Your task to perform on an android device: turn off picture-in-picture Image 0: 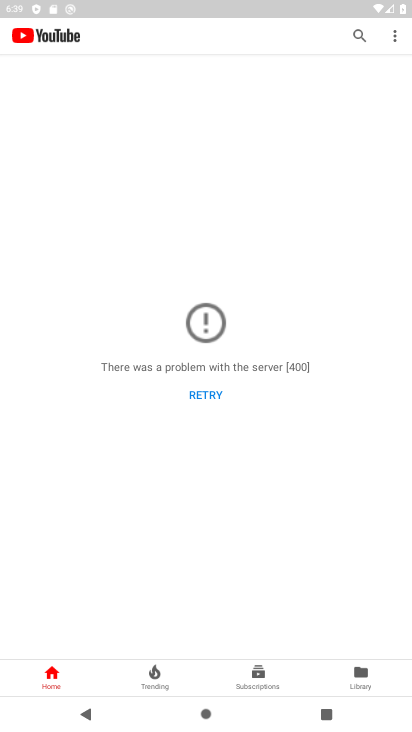
Step 0: press home button
Your task to perform on an android device: turn off picture-in-picture Image 1: 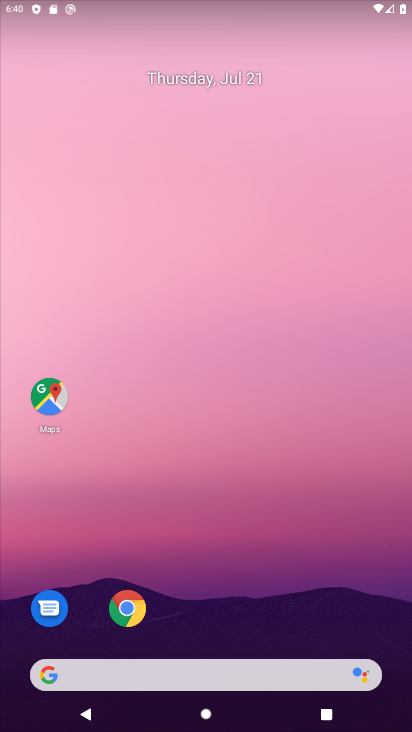
Step 1: drag from (211, 571) to (128, 54)
Your task to perform on an android device: turn off picture-in-picture Image 2: 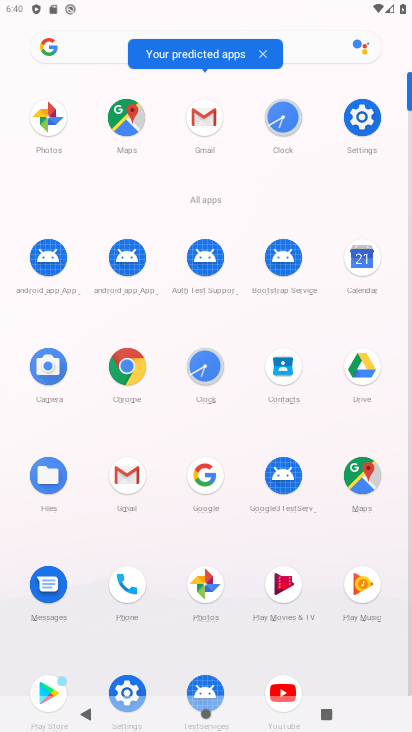
Step 2: click (359, 115)
Your task to perform on an android device: turn off picture-in-picture Image 3: 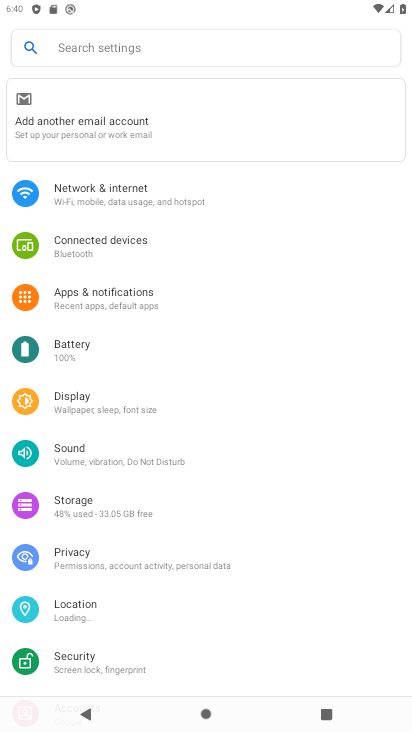
Step 3: click (83, 288)
Your task to perform on an android device: turn off picture-in-picture Image 4: 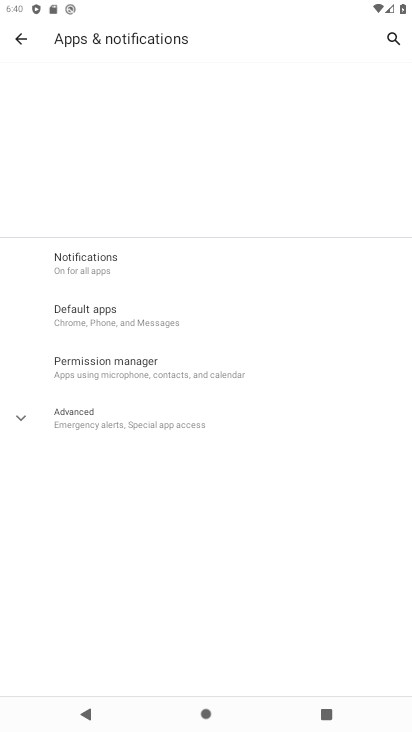
Step 4: click (26, 413)
Your task to perform on an android device: turn off picture-in-picture Image 5: 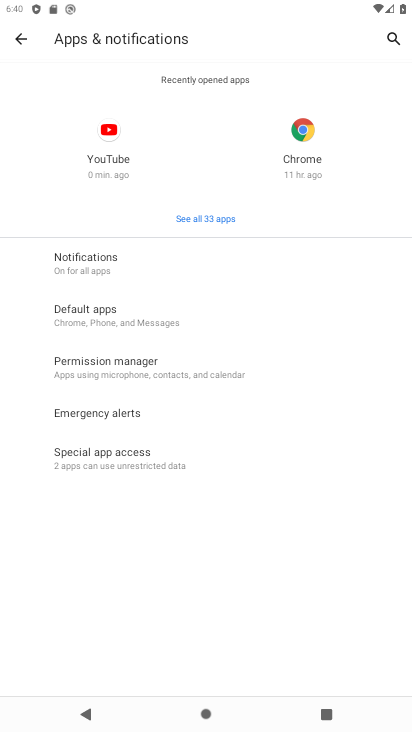
Step 5: click (92, 463)
Your task to perform on an android device: turn off picture-in-picture Image 6: 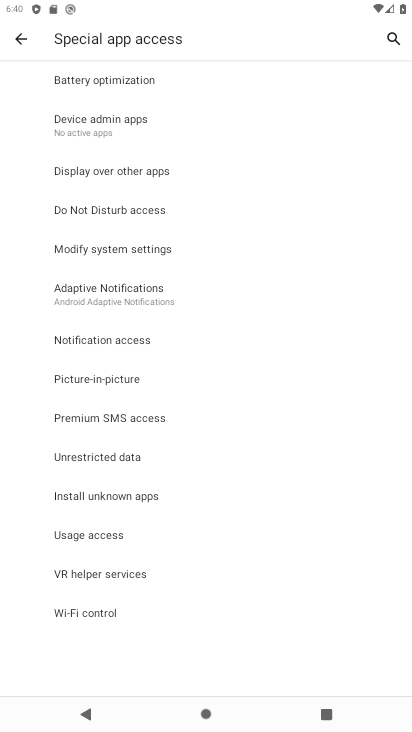
Step 6: click (102, 374)
Your task to perform on an android device: turn off picture-in-picture Image 7: 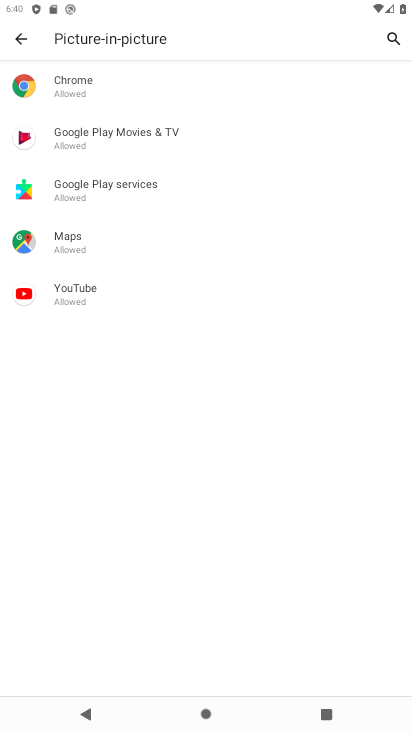
Step 7: click (63, 75)
Your task to perform on an android device: turn off picture-in-picture Image 8: 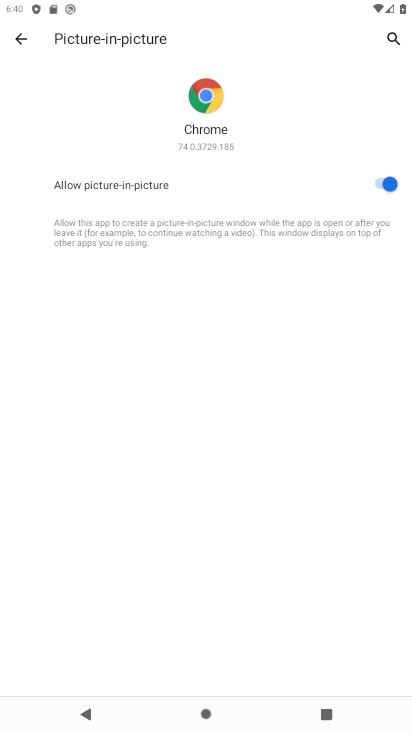
Step 8: click (390, 184)
Your task to perform on an android device: turn off picture-in-picture Image 9: 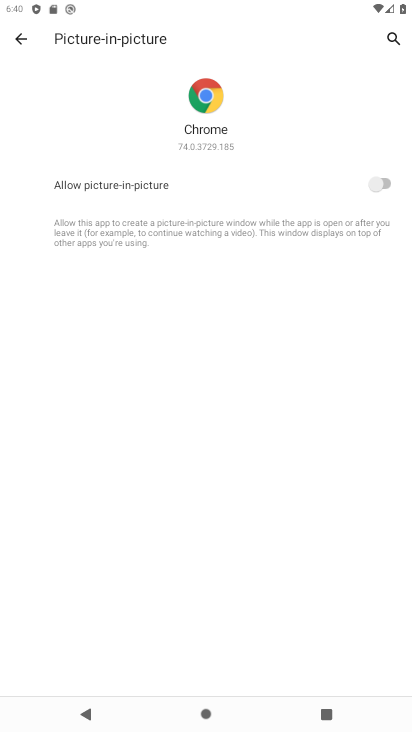
Step 9: click (17, 32)
Your task to perform on an android device: turn off picture-in-picture Image 10: 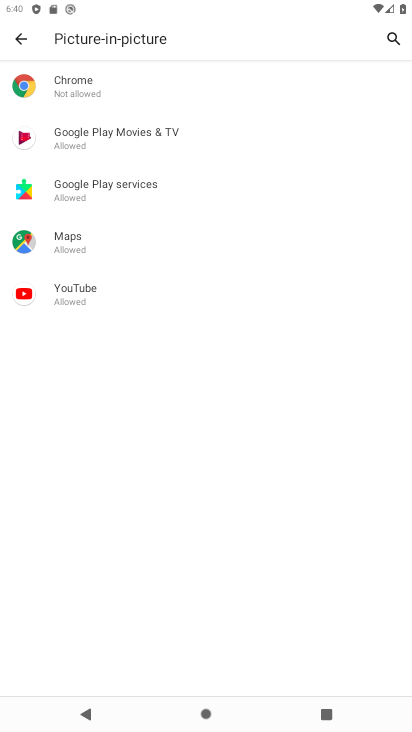
Step 10: click (90, 149)
Your task to perform on an android device: turn off picture-in-picture Image 11: 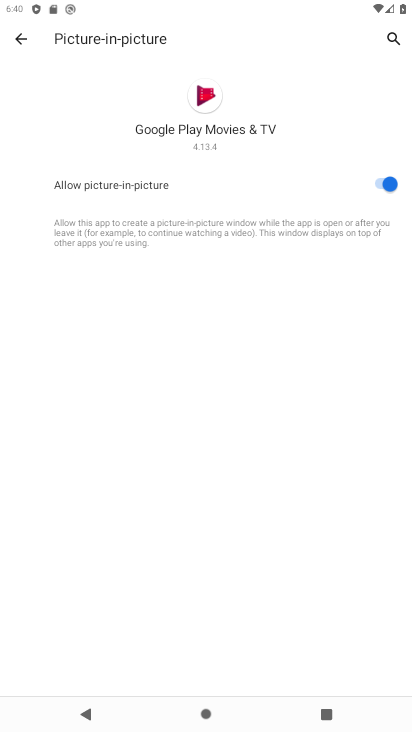
Step 11: click (385, 177)
Your task to perform on an android device: turn off picture-in-picture Image 12: 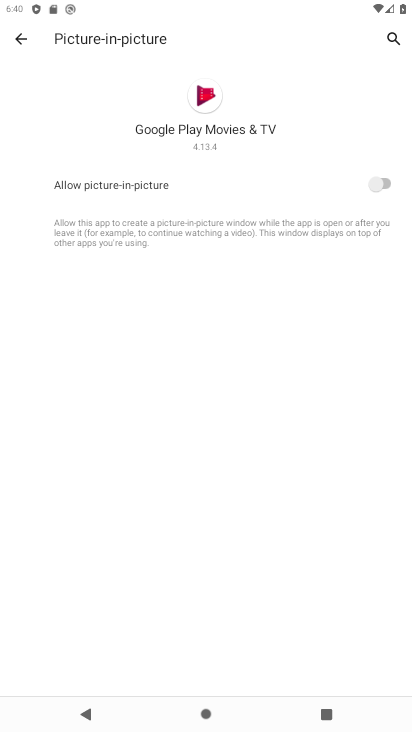
Step 12: click (20, 32)
Your task to perform on an android device: turn off picture-in-picture Image 13: 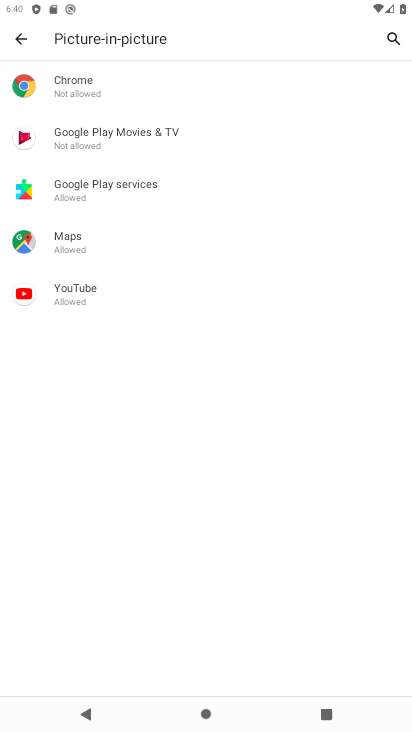
Step 13: click (60, 188)
Your task to perform on an android device: turn off picture-in-picture Image 14: 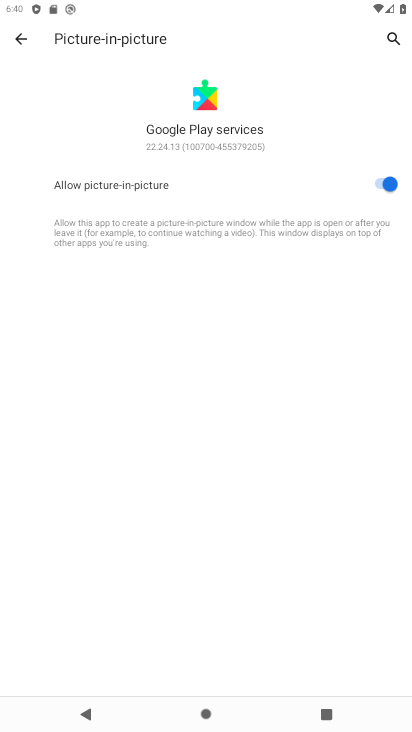
Step 14: click (386, 192)
Your task to perform on an android device: turn off picture-in-picture Image 15: 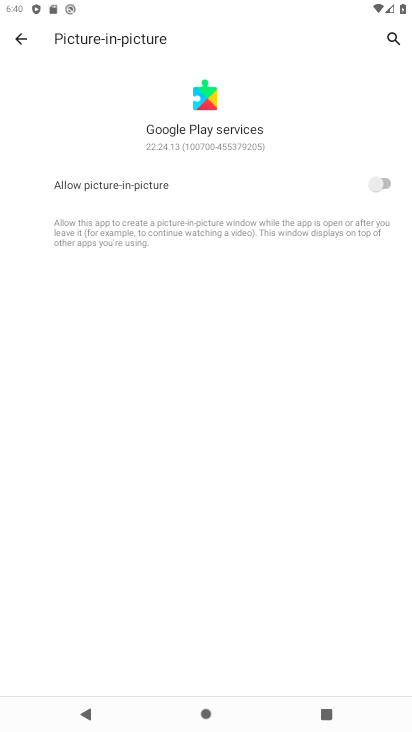
Step 15: click (18, 33)
Your task to perform on an android device: turn off picture-in-picture Image 16: 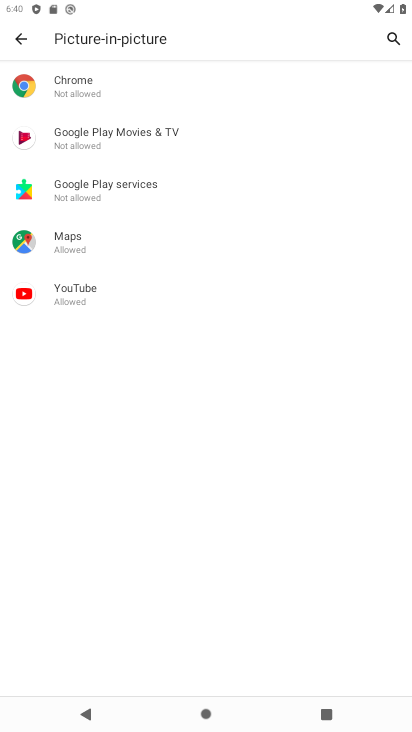
Step 16: click (71, 236)
Your task to perform on an android device: turn off picture-in-picture Image 17: 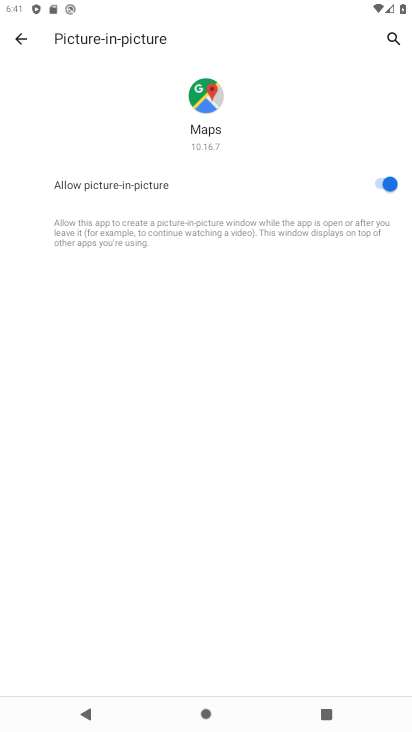
Step 17: click (394, 183)
Your task to perform on an android device: turn off picture-in-picture Image 18: 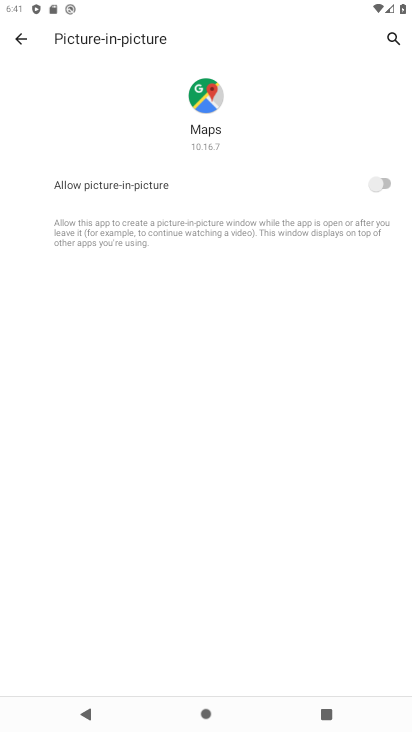
Step 18: click (18, 35)
Your task to perform on an android device: turn off picture-in-picture Image 19: 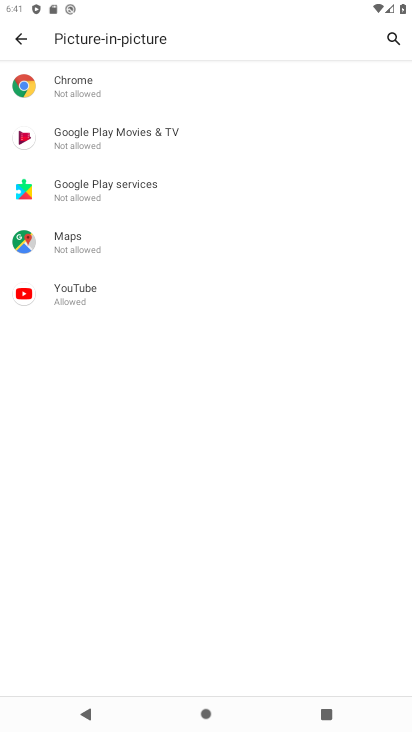
Step 19: click (68, 287)
Your task to perform on an android device: turn off picture-in-picture Image 20: 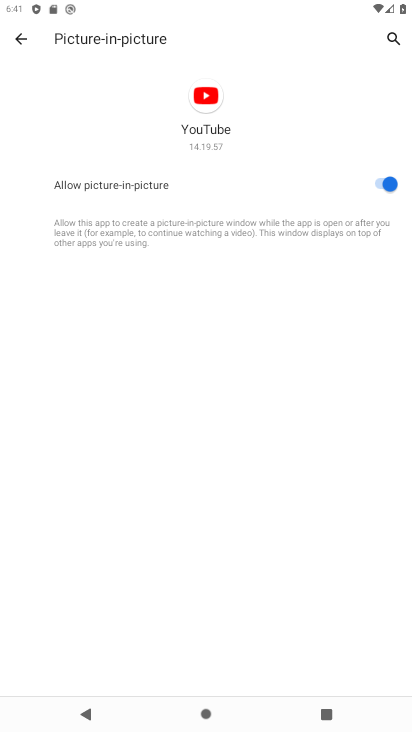
Step 20: click (379, 179)
Your task to perform on an android device: turn off picture-in-picture Image 21: 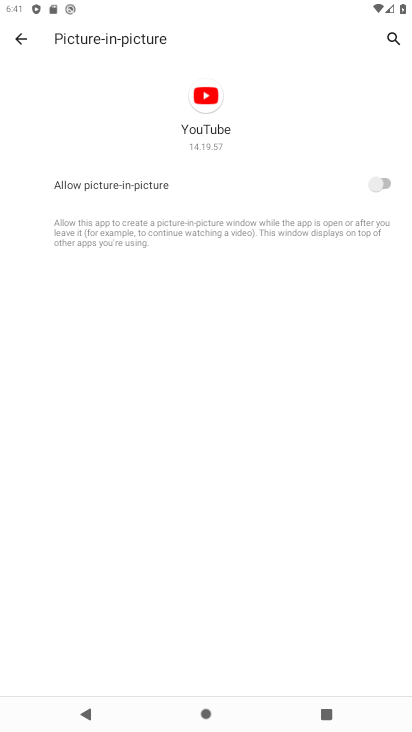
Step 21: click (15, 43)
Your task to perform on an android device: turn off picture-in-picture Image 22: 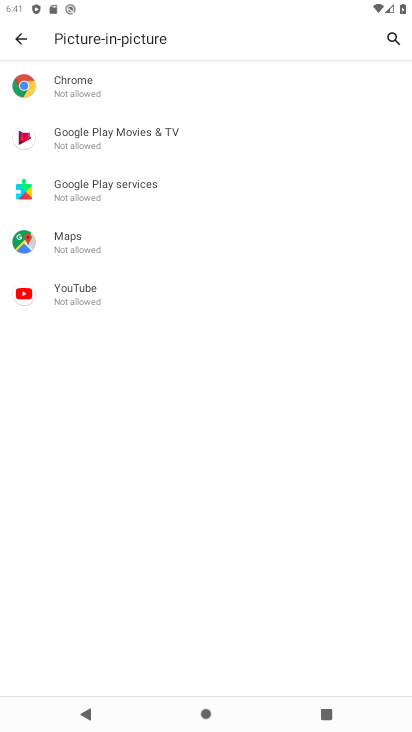
Step 22: task complete